Your task to perform on an android device: Do I have any events tomorrow? Image 0: 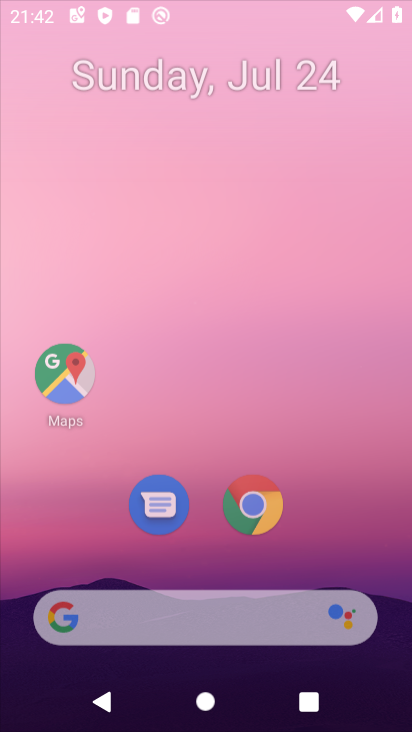
Step 0: press home button
Your task to perform on an android device: Do I have any events tomorrow? Image 1: 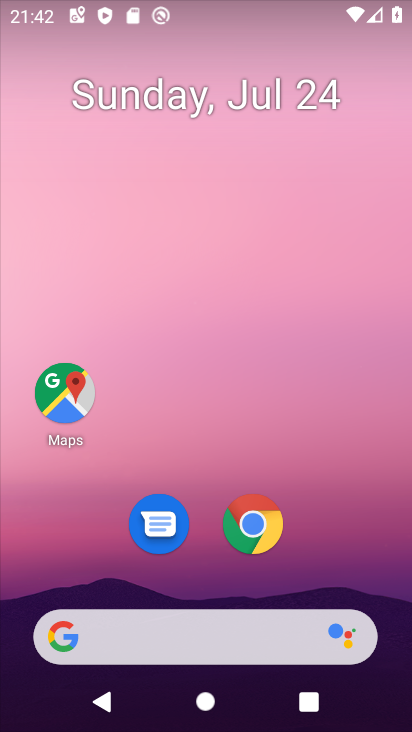
Step 1: drag from (184, 650) to (340, 159)
Your task to perform on an android device: Do I have any events tomorrow? Image 2: 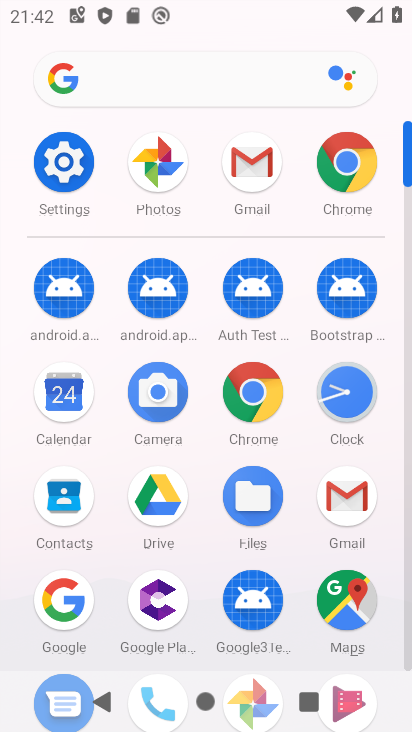
Step 2: click (63, 405)
Your task to perform on an android device: Do I have any events tomorrow? Image 3: 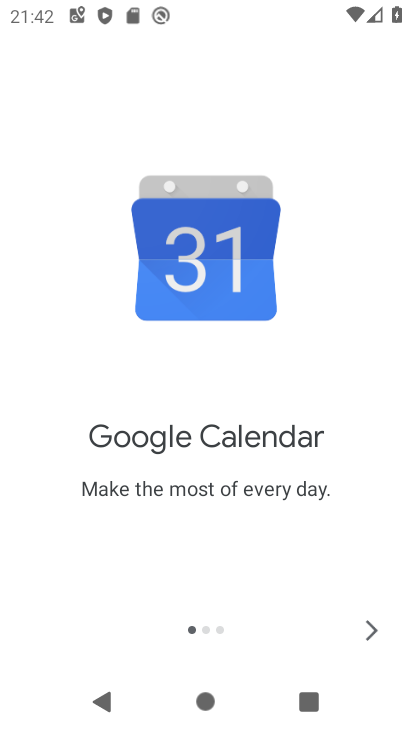
Step 3: click (363, 628)
Your task to perform on an android device: Do I have any events tomorrow? Image 4: 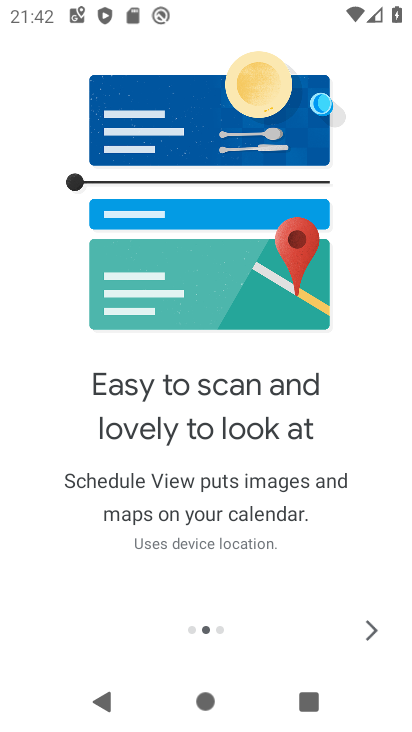
Step 4: click (363, 628)
Your task to perform on an android device: Do I have any events tomorrow? Image 5: 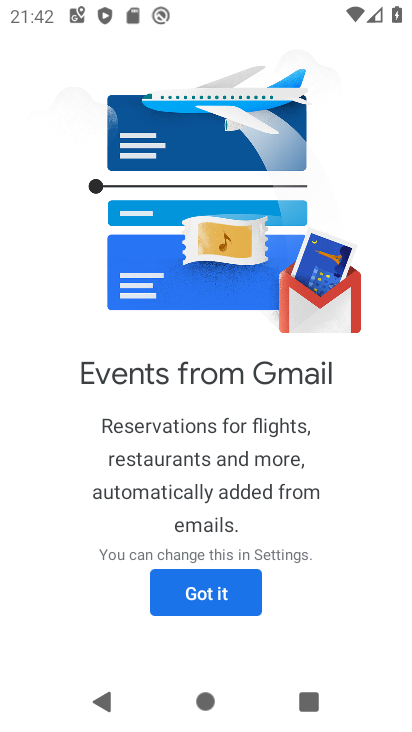
Step 5: click (222, 596)
Your task to perform on an android device: Do I have any events tomorrow? Image 6: 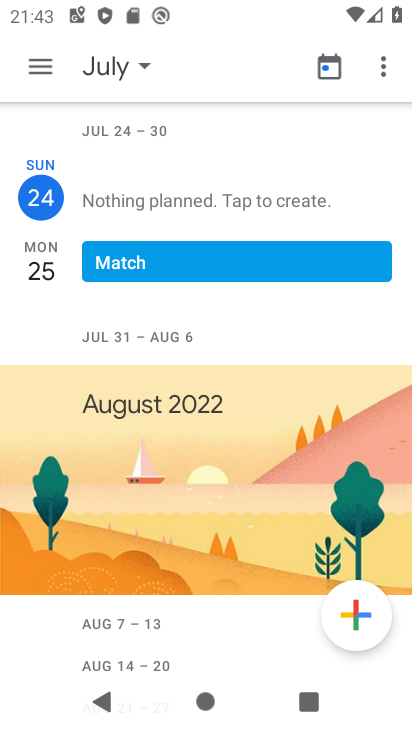
Step 6: click (98, 65)
Your task to perform on an android device: Do I have any events tomorrow? Image 7: 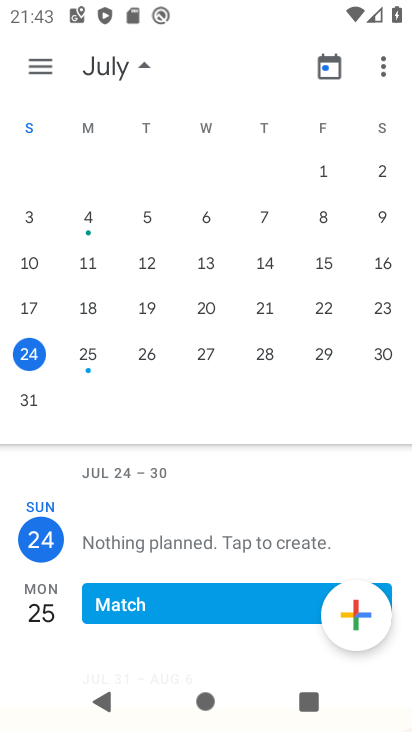
Step 7: click (91, 364)
Your task to perform on an android device: Do I have any events tomorrow? Image 8: 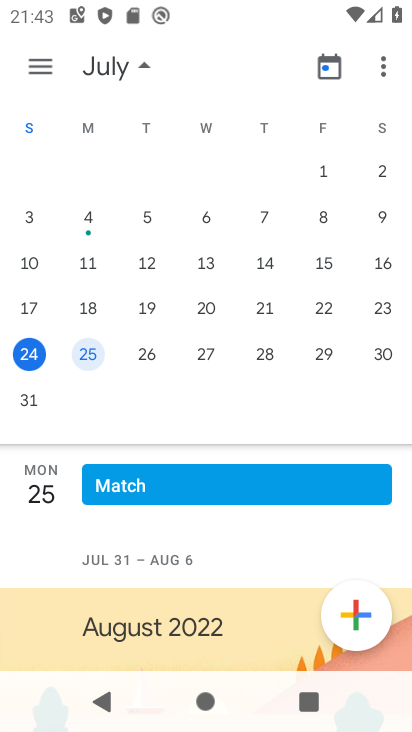
Step 8: click (43, 74)
Your task to perform on an android device: Do I have any events tomorrow? Image 9: 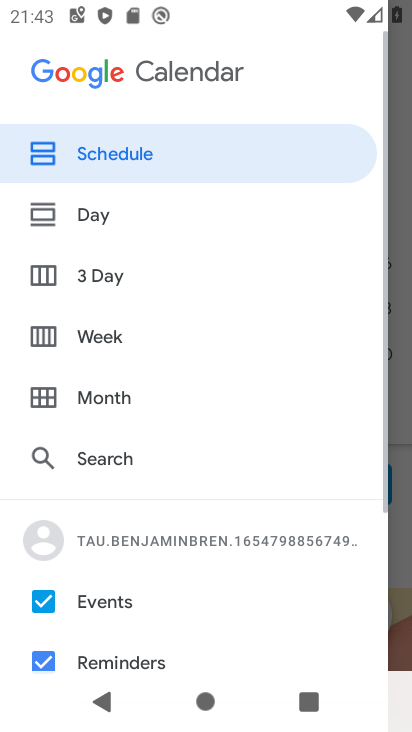
Step 9: click (110, 156)
Your task to perform on an android device: Do I have any events tomorrow? Image 10: 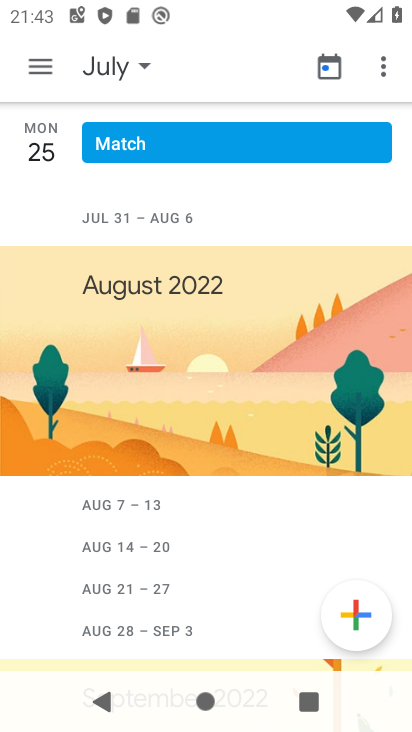
Step 10: click (142, 150)
Your task to perform on an android device: Do I have any events tomorrow? Image 11: 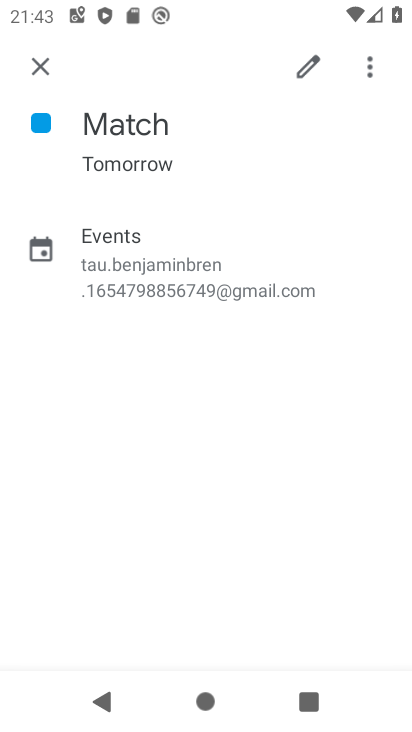
Step 11: task complete